Your task to perform on an android device: toggle javascript in the chrome app Image 0: 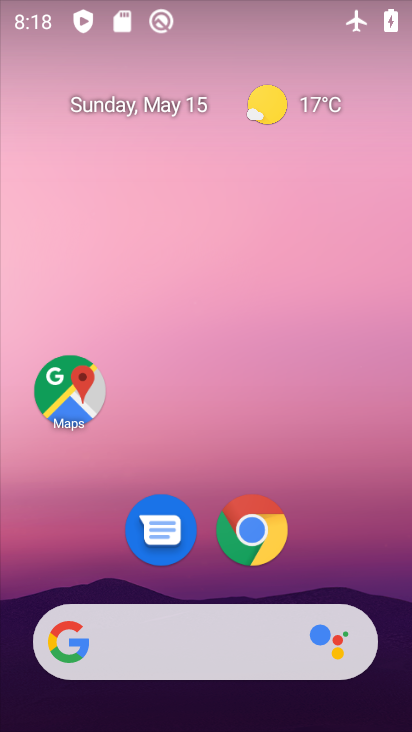
Step 0: click (255, 527)
Your task to perform on an android device: toggle javascript in the chrome app Image 1: 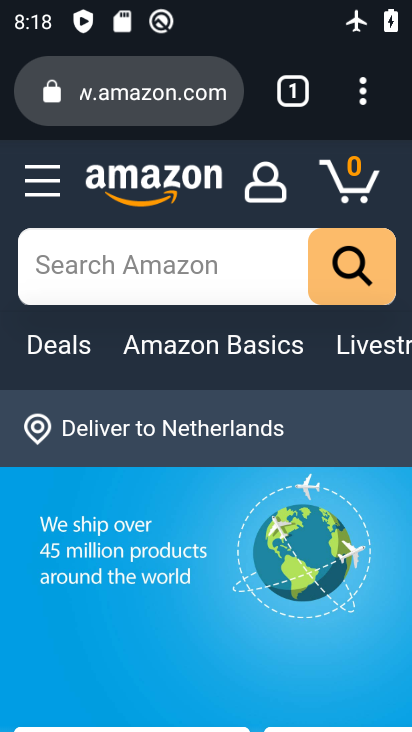
Step 1: click (364, 102)
Your task to perform on an android device: toggle javascript in the chrome app Image 2: 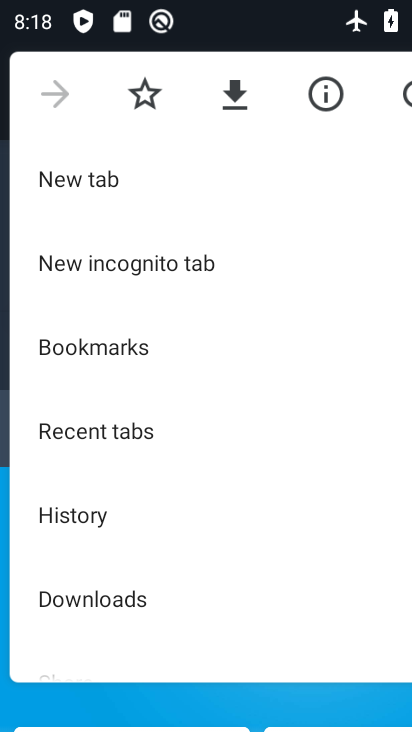
Step 2: drag from (126, 624) to (130, 188)
Your task to perform on an android device: toggle javascript in the chrome app Image 3: 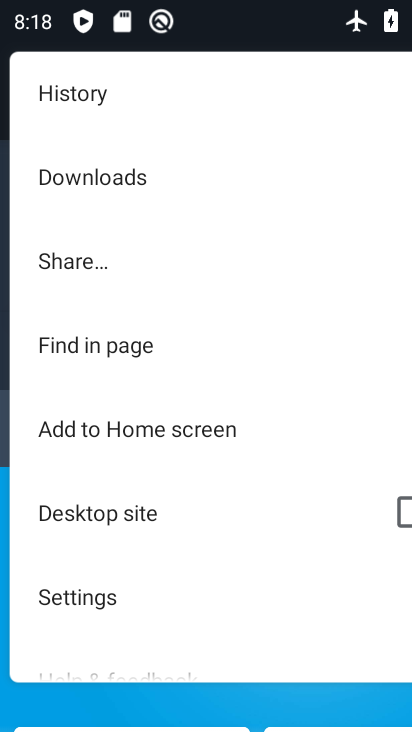
Step 3: click (106, 593)
Your task to perform on an android device: toggle javascript in the chrome app Image 4: 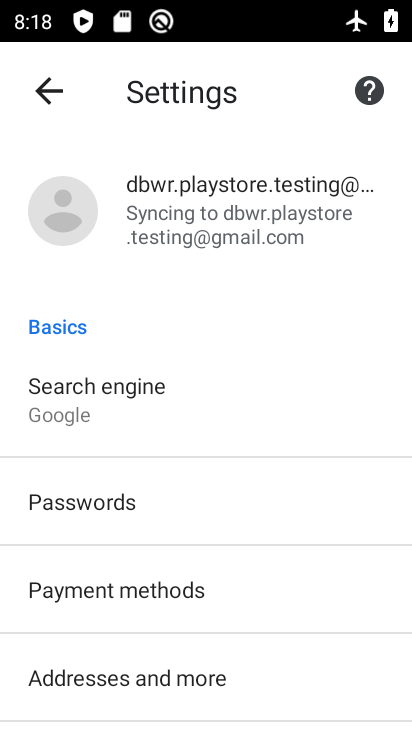
Step 4: drag from (112, 657) to (160, 327)
Your task to perform on an android device: toggle javascript in the chrome app Image 5: 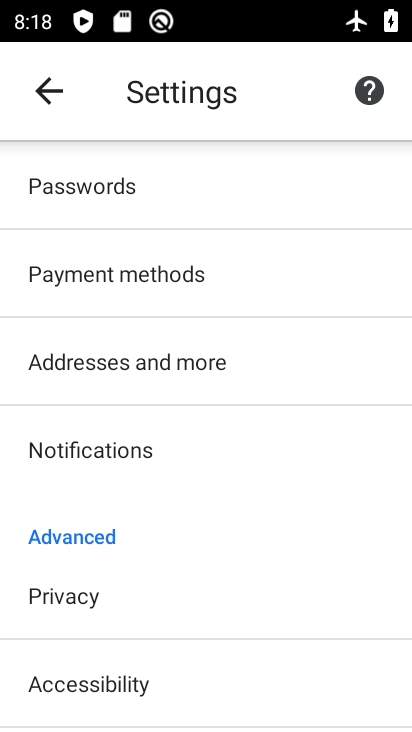
Step 5: drag from (90, 634) to (98, 324)
Your task to perform on an android device: toggle javascript in the chrome app Image 6: 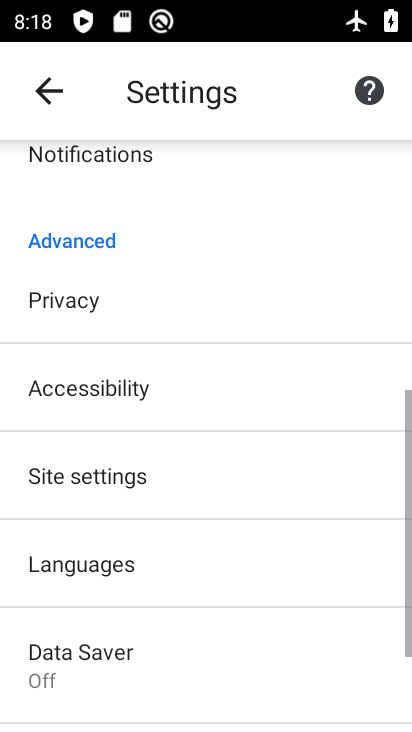
Step 6: click (94, 475)
Your task to perform on an android device: toggle javascript in the chrome app Image 7: 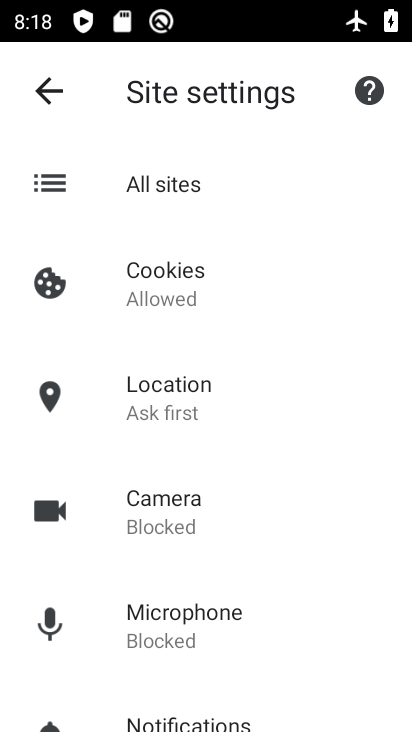
Step 7: drag from (241, 659) to (283, 161)
Your task to perform on an android device: toggle javascript in the chrome app Image 8: 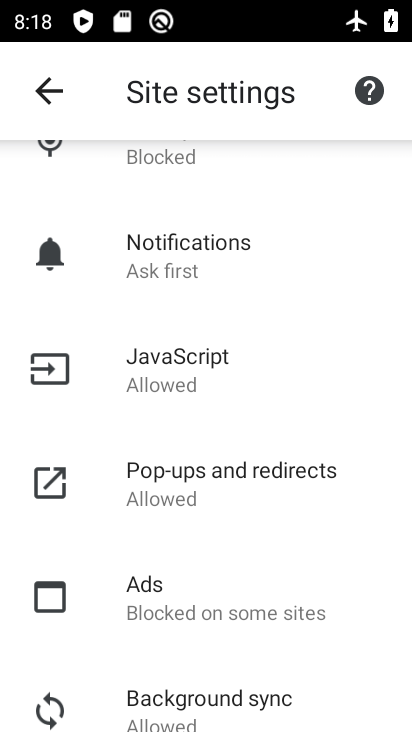
Step 8: click (167, 364)
Your task to perform on an android device: toggle javascript in the chrome app Image 9: 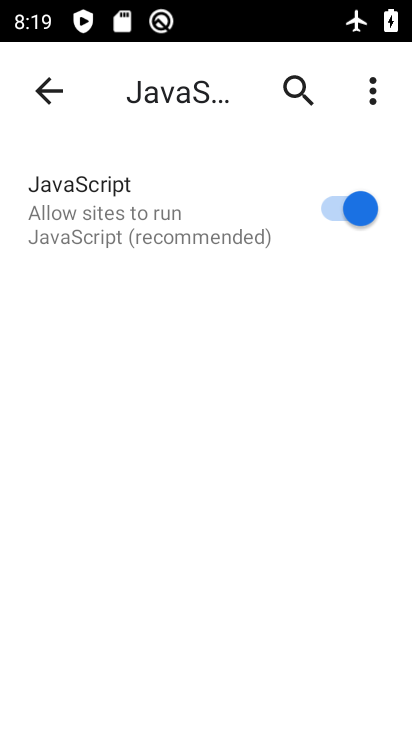
Step 9: task complete